Your task to perform on an android device: Go to Amazon Image 0: 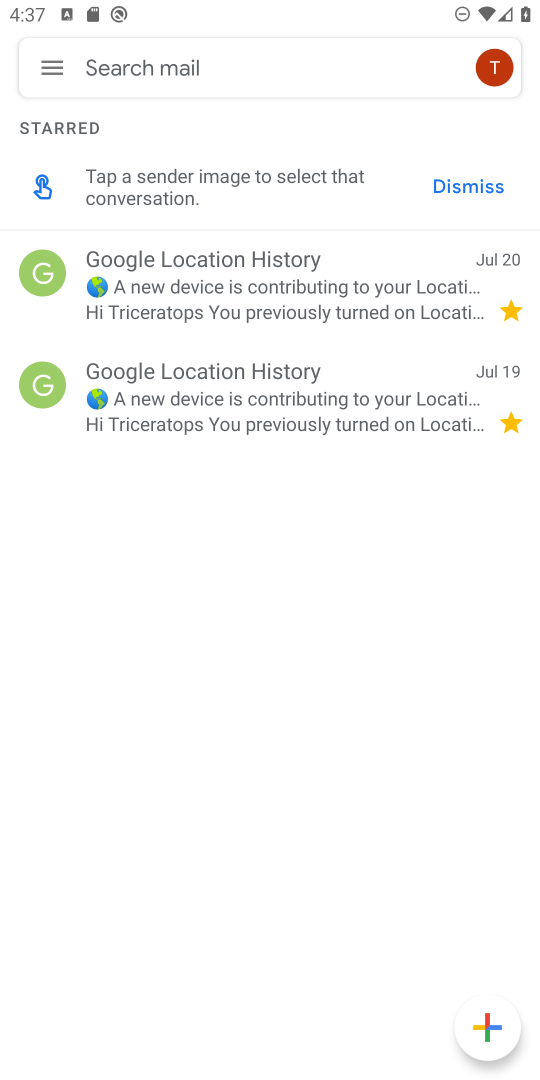
Step 0: press home button
Your task to perform on an android device: Go to Amazon Image 1: 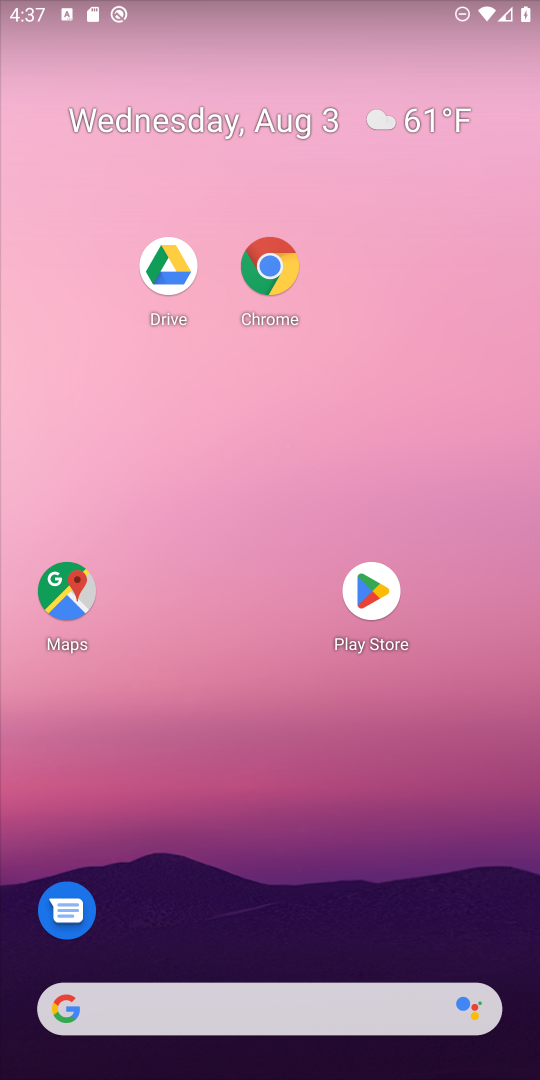
Step 1: drag from (294, 957) to (454, 2)
Your task to perform on an android device: Go to Amazon Image 2: 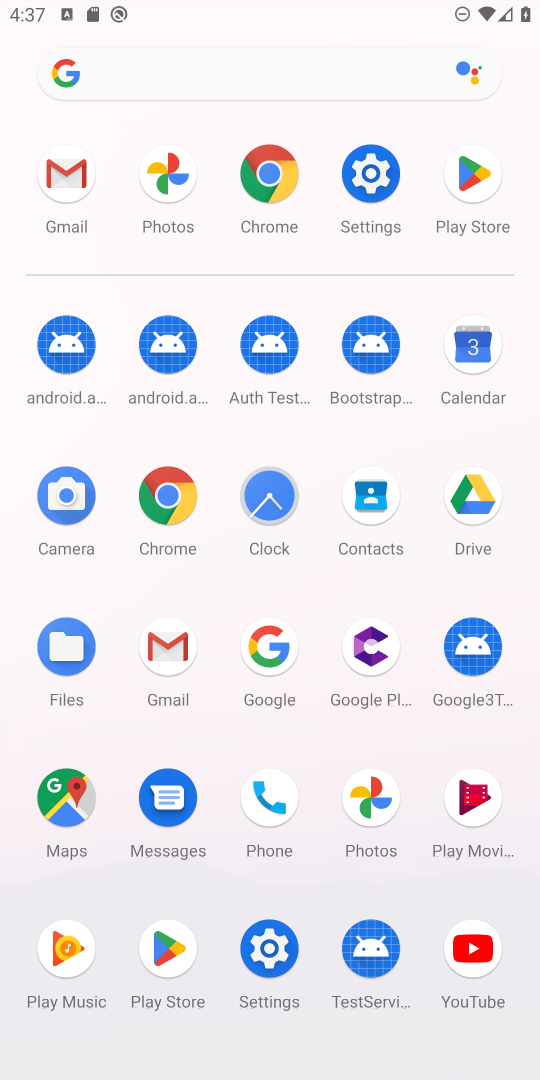
Step 2: click (175, 500)
Your task to perform on an android device: Go to Amazon Image 3: 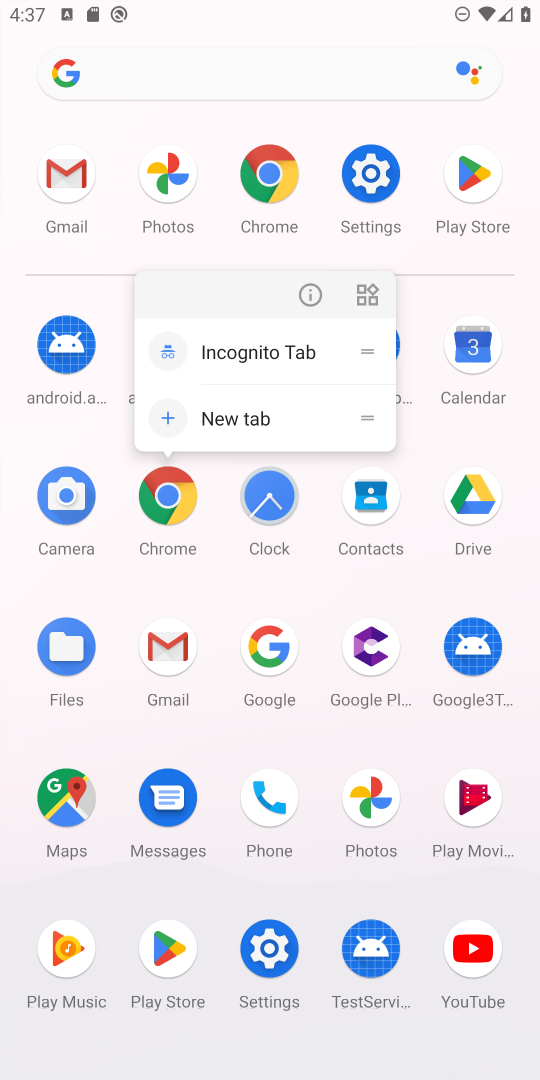
Step 3: click (173, 502)
Your task to perform on an android device: Go to Amazon Image 4: 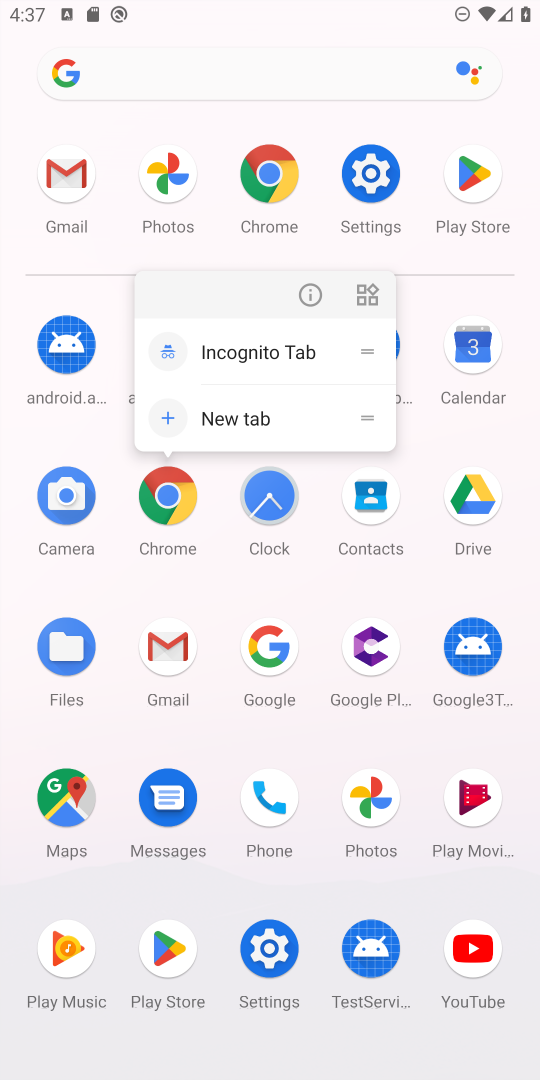
Step 4: click (173, 502)
Your task to perform on an android device: Go to Amazon Image 5: 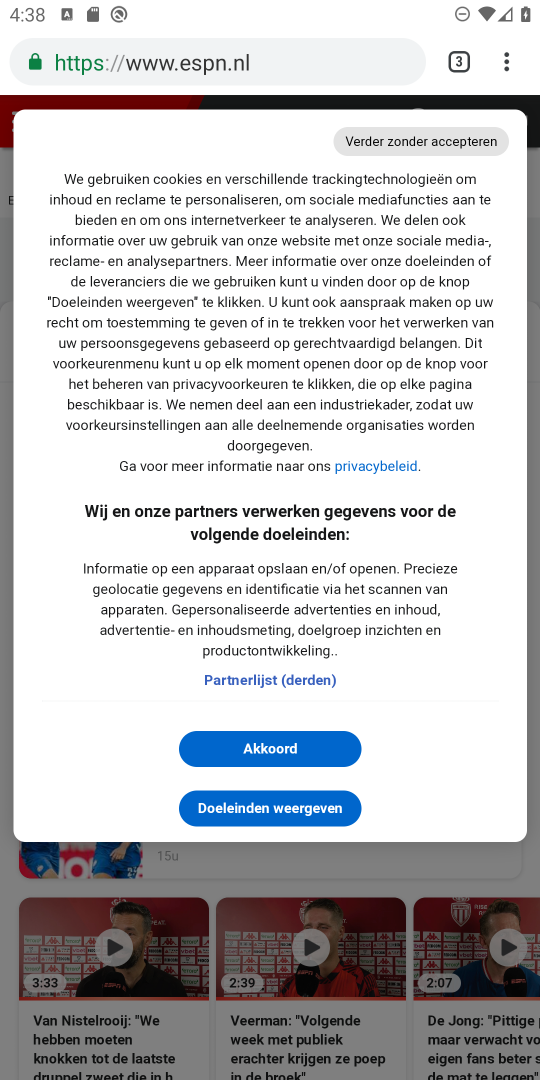
Step 5: drag from (507, 62) to (384, 107)
Your task to perform on an android device: Go to Amazon Image 6: 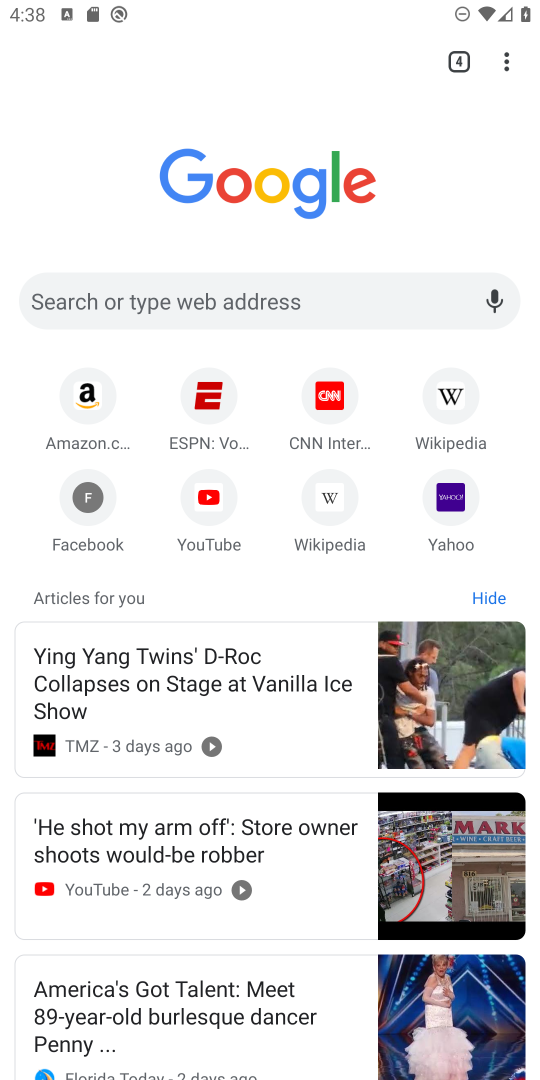
Step 6: click (99, 402)
Your task to perform on an android device: Go to Amazon Image 7: 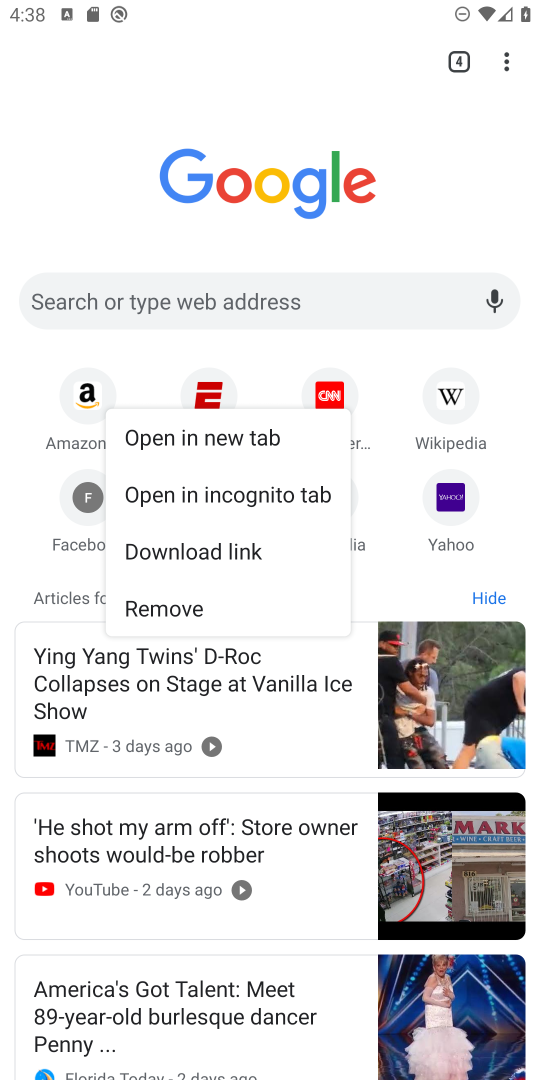
Step 7: click (88, 386)
Your task to perform on an android device: Go to Amazon Image 8: 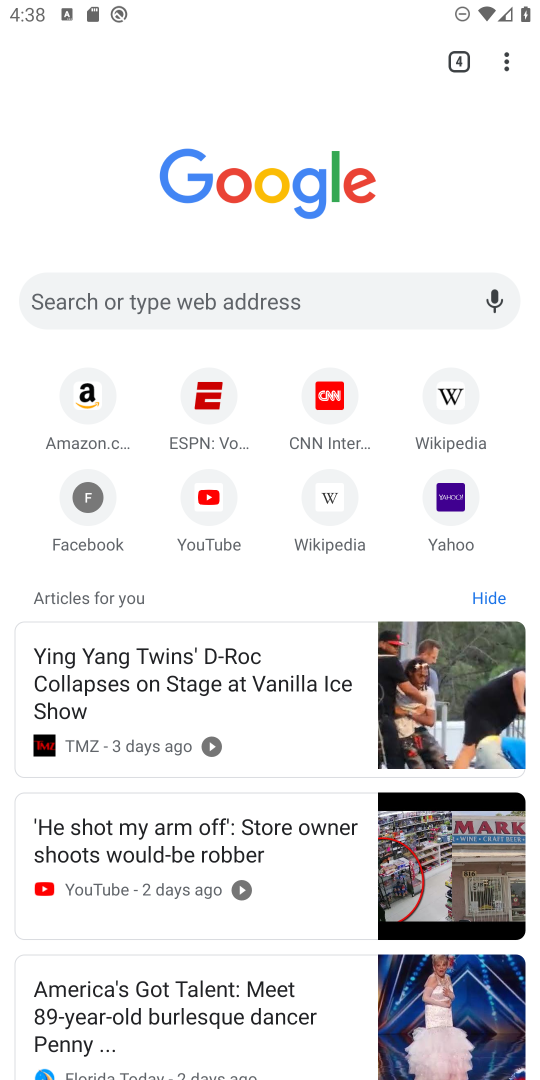
Step 8: click (88, 386)
Your task to perform on an android device: Go to Amazon Image 9: 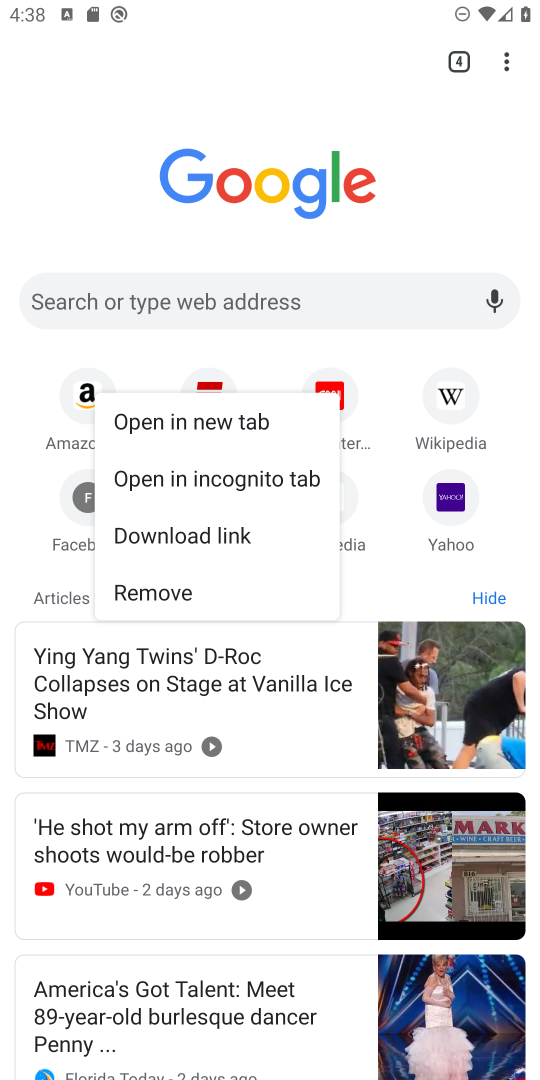
Step 9: click (65, 405)
Your task to perform on an android device: Go to Amazon Image 10: 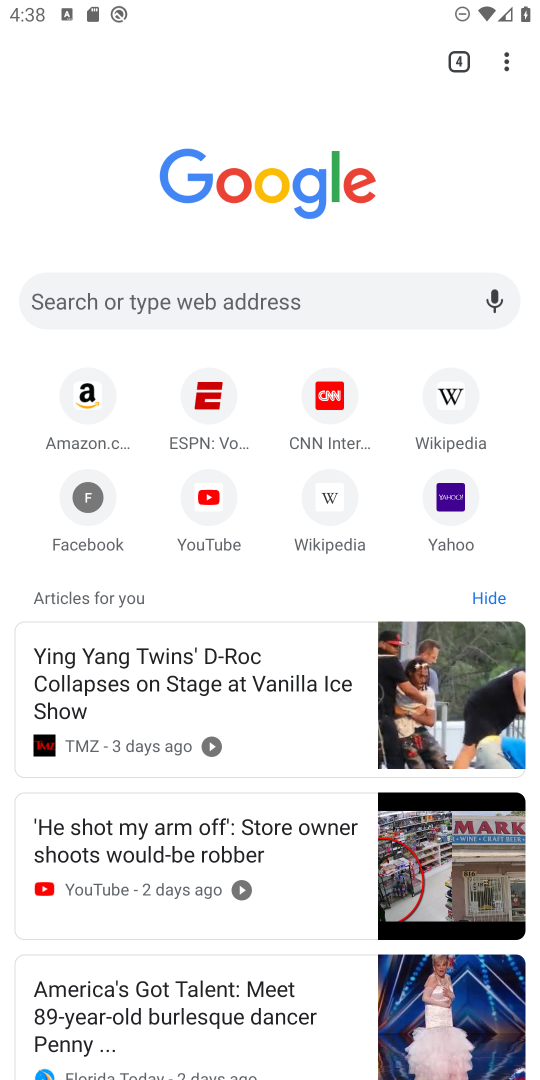
Step 10: click (80, 384)
Your task to perform on an android device: Go to Amazon Image 11: 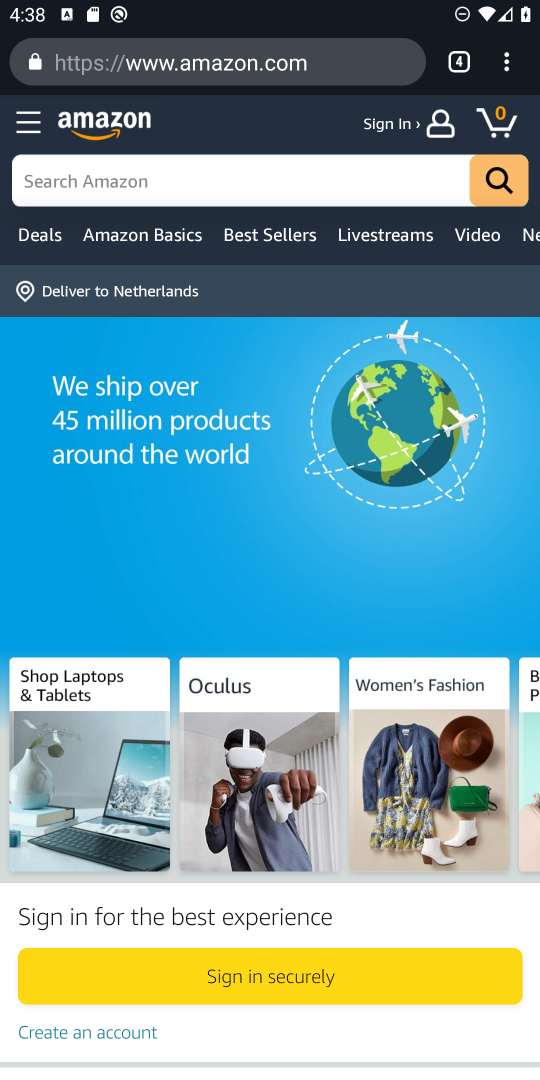
Step 11: task complete